Your task to perform on an android device: Open the web browser Image 0: 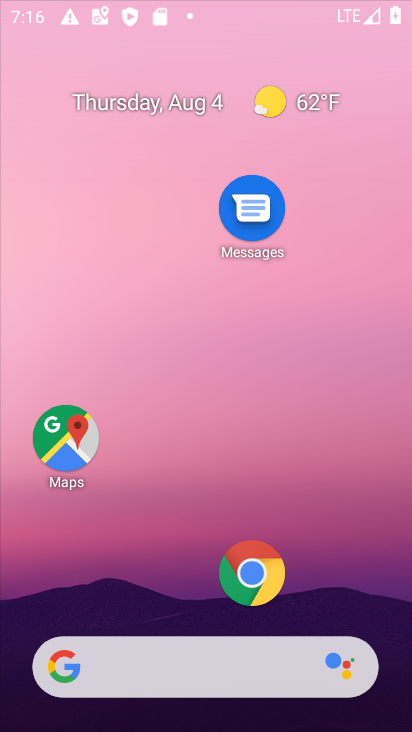
Step 0: press home button
Your task to perform on an android device: Open the web browser Image 1: 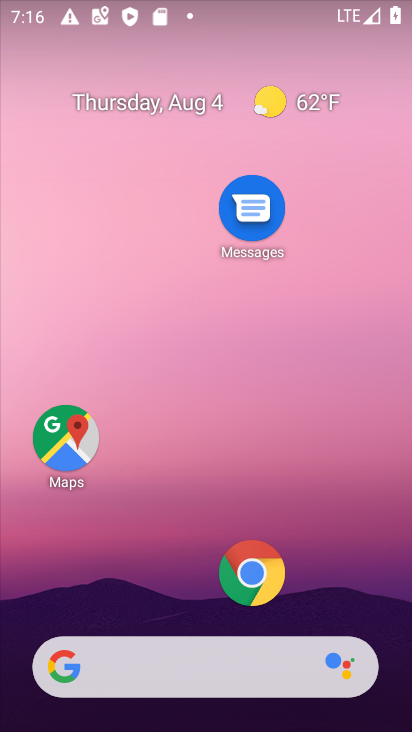
Step 1: click (63, 669)
Your task to perform on an android device: Open the web browser Image 2: 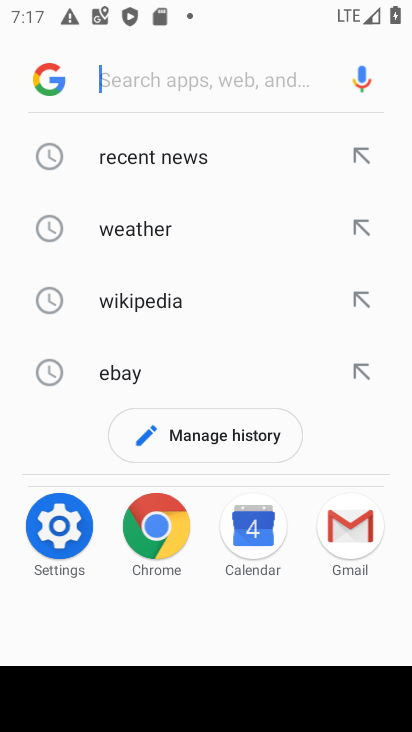
Step 2: task complete